Your task to perform on an android device: Open the calendar and show me this week's events Image 0: 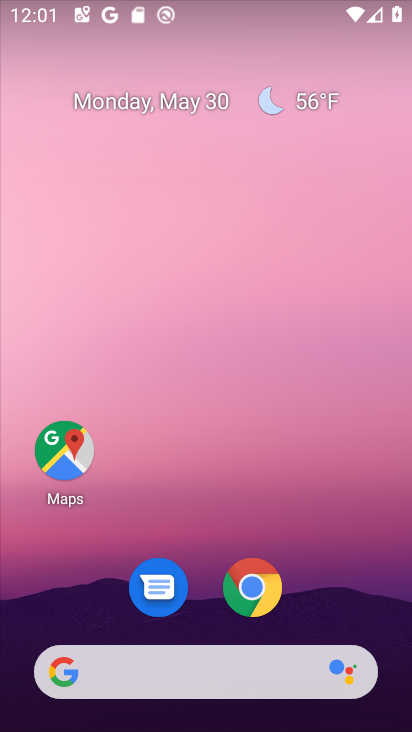
Step 0: drag from (377, 594) to (314, 221)
Your task to perform on an android device: Open the calendar and show me this week's events Image 1: 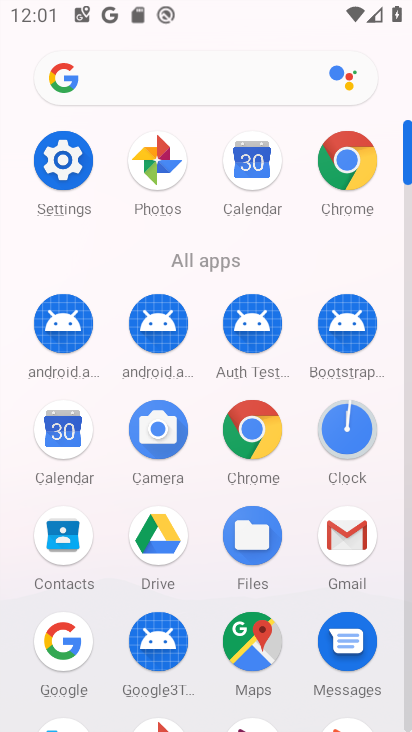
Step 1: click (65, 419)
Your task to perform on an android device: Open the calendar and show me this week's events Image 2: 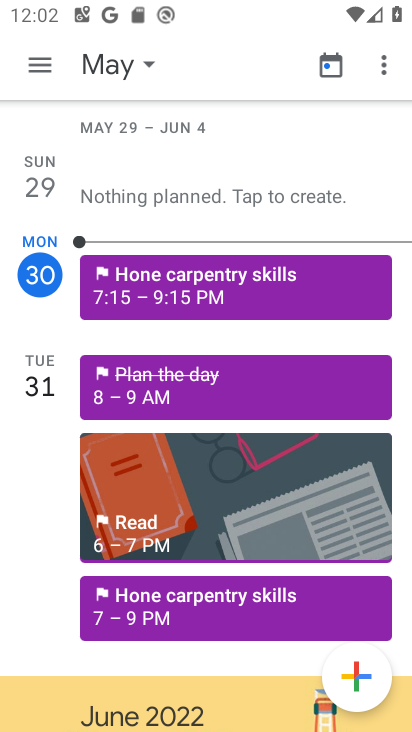
Step 2: click (40, 75)
Your task to perform on an android device: Open the calendar and show me this week's events Image 3: 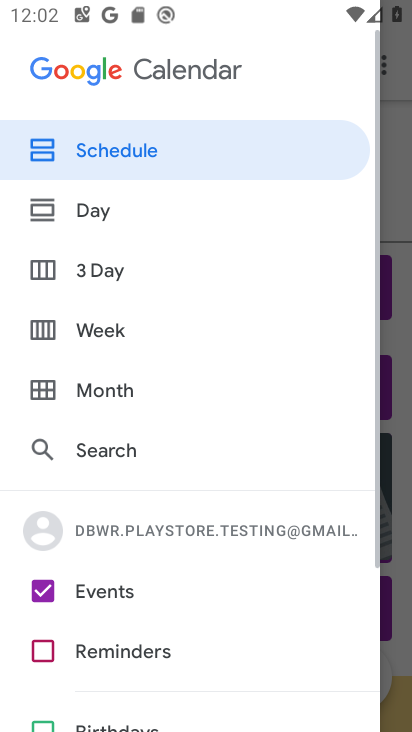
Step 3: click (124, 322)
Your task to perform on an android device: Open the calendar and show me this week's events Image 4: 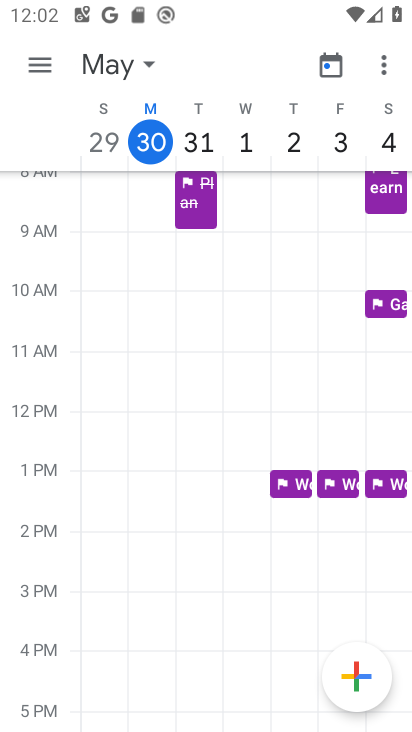
Step 4: task complete